Your task to perform on an android device: turn off smart reply in the gmail app Image 0: 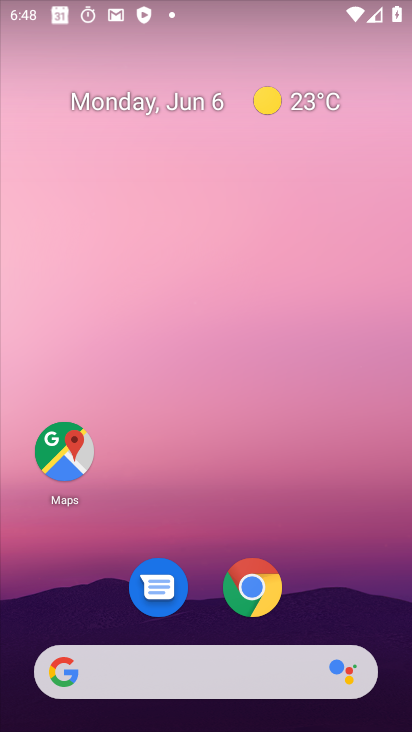
Step 0: drag from (404, 633) to (390, 511)
Your task to perform on an android device: turn off smart reply in the gmail app Image 1: 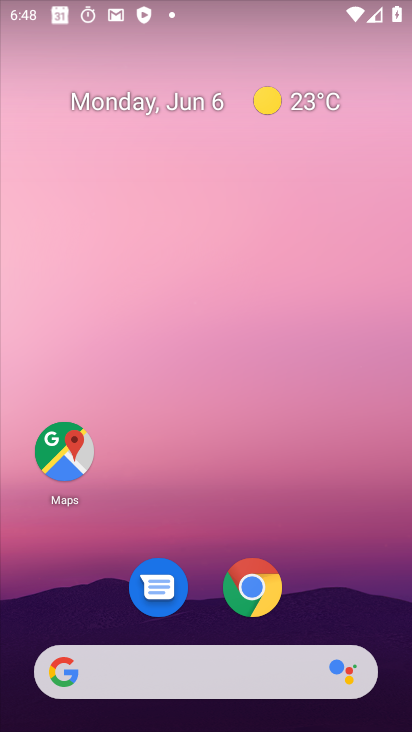
Step 1: click (351, 508)
Your task to perform on an android device: turn off smart reply in the gmail app Image 2: 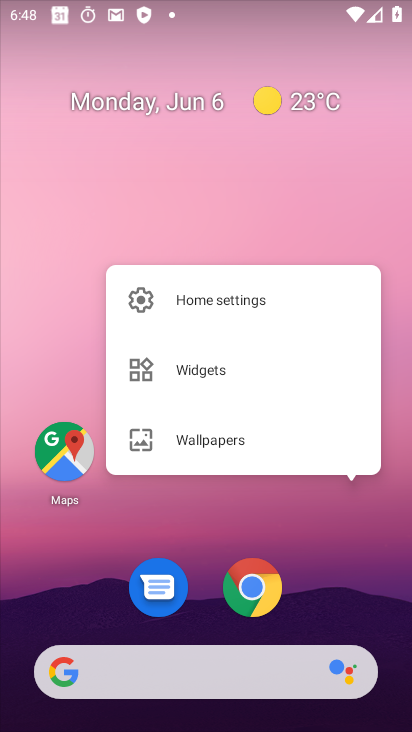
Step 2: click (393, 634)
Your task to perform on an android device: turn off smart reply in the gmail app Image 3: 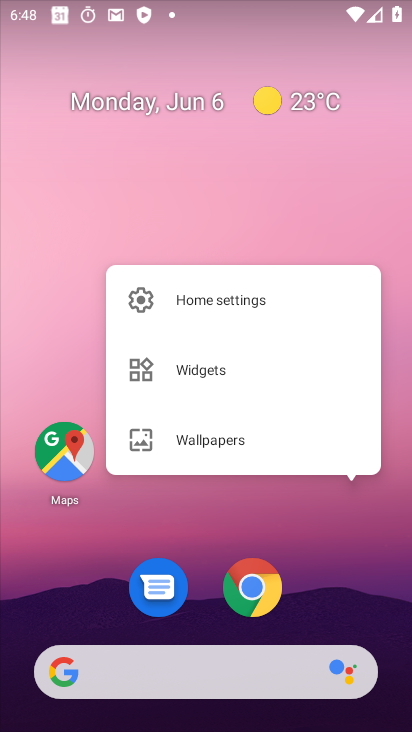
Step 3: drag from (368, 521) to (265, 142)
Your task to perform on an android device: turn off smart reply in the gmail app Image 4: 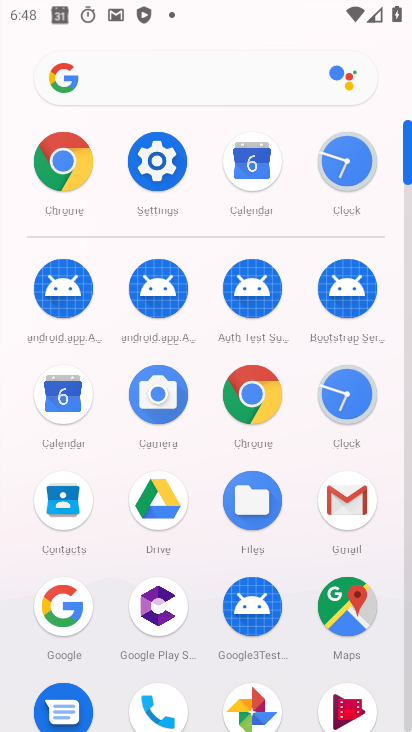
Step 4: click (341, 503)
Your task to perform on an android device: turn off smart reply in the gmail app Image 5: 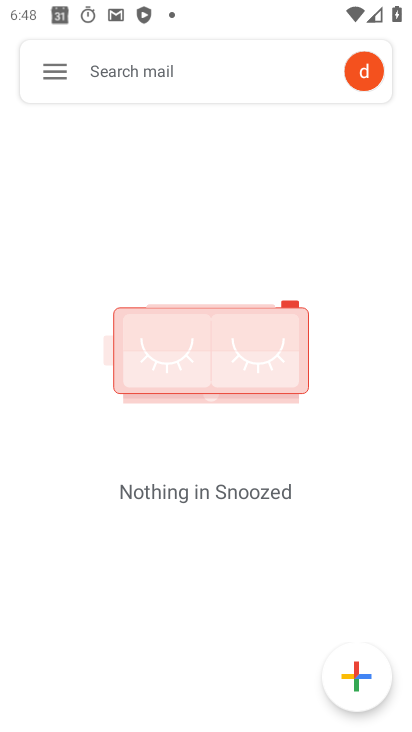
Step 5: click (61, 52)
Your task to perform on an android device: turn off smart reply in the gmail app Image 6: 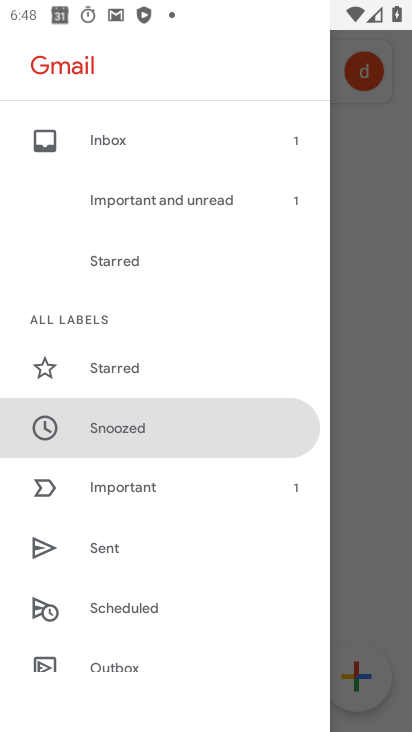
Step 6: drag from (57, 649) to (49, 30)
Your task to perform on an android device: turn off smart reply in the gmail app Image 7: 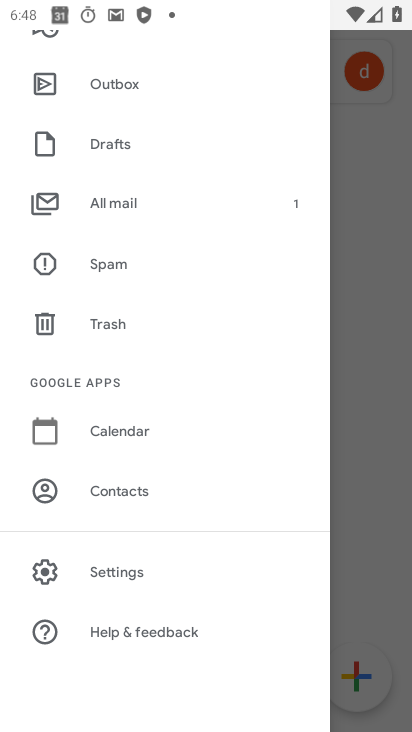
Step 7: click (154, 561)
Your task to perform on an android device: turn off smart reply in the gmail app Image 8: 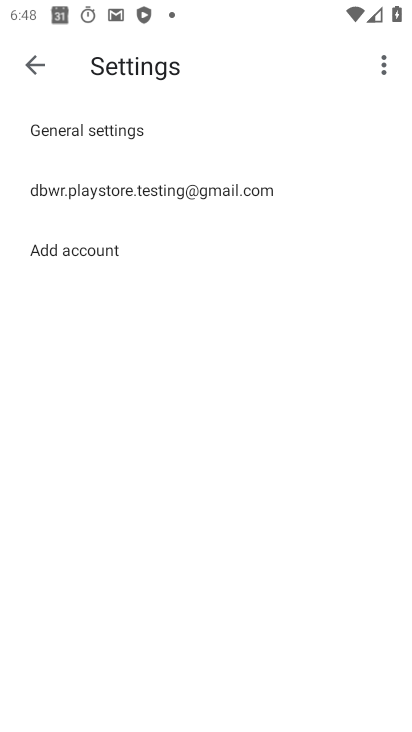
Step 8: click (194, 183)
Your task to perform on an android device: turn off smart reply in the gmail app Image 9: 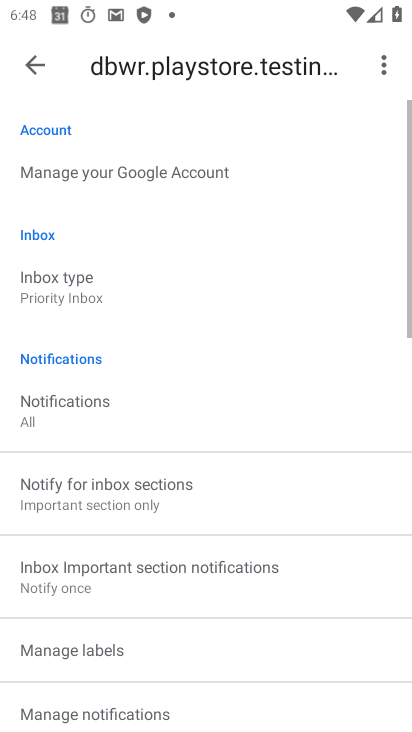
Step 9: drag from (62, 668) to (166, 90)
Your task to perform on an android device: turn off smart reply in the gmail app Image 10: 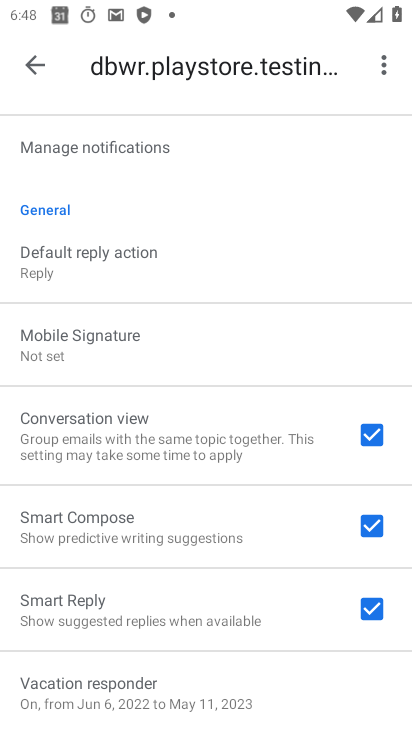
Step 10: click (239, 612)
Your task to perform on an android device: turn off smart reply in the gmail app Image 11: 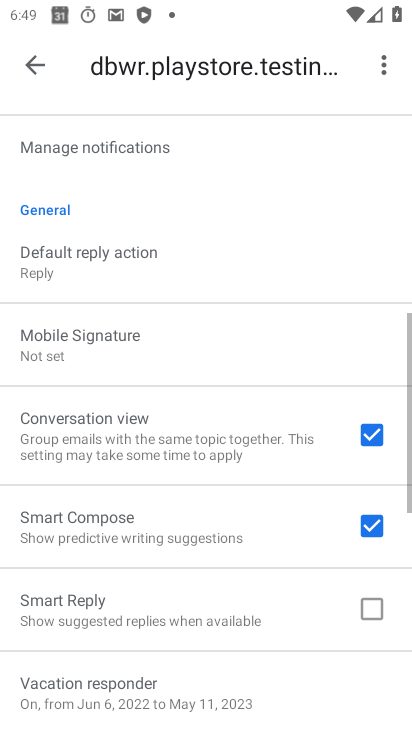
Step 11: task complete